Your task to perform on an android device: turn on showing notifications on the lock screen Image 0: 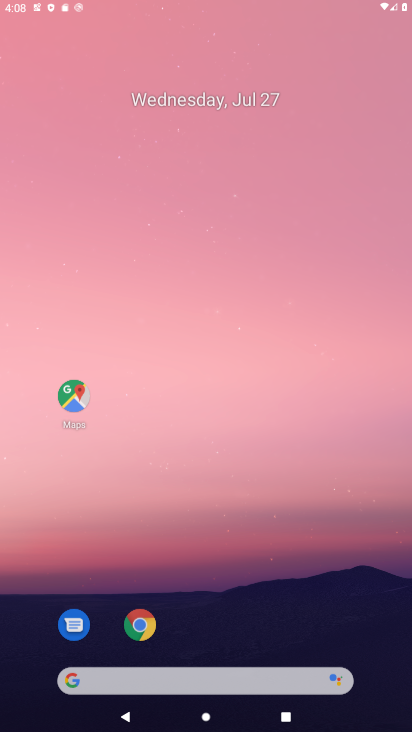
Step 0: press home button
Your task to perform on an android device: turn on showing notifications on the lock screen Image 1: 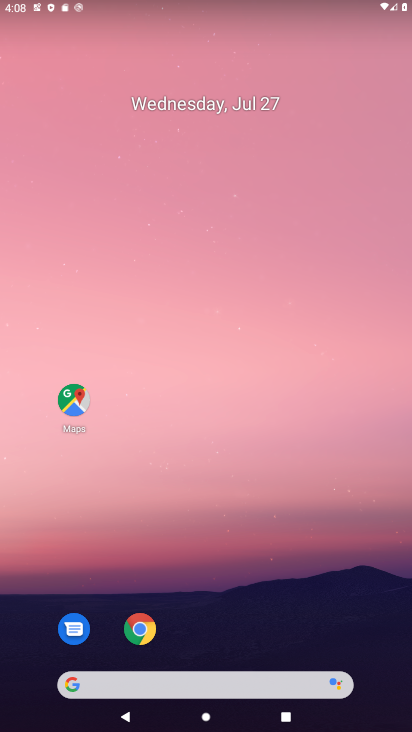
Step 1: drag from (201, 635) to (295, 10)
Your task to perform on an android device: turn on showing notifications on the lock screen Image 2: 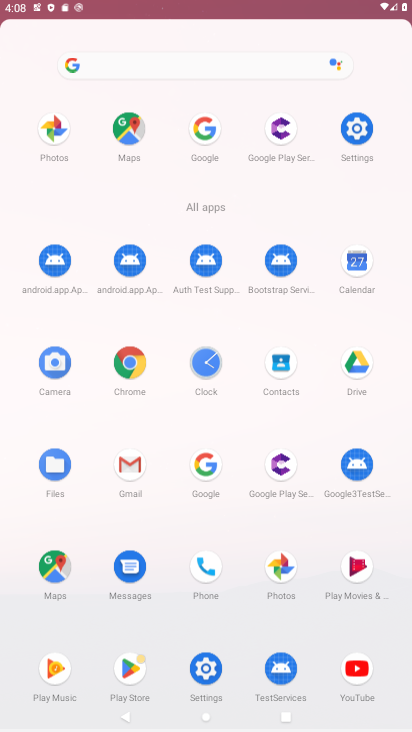
Step 2: click (360, 164)
Your task to perform on an android device: turn on showing notifications on the lock screen Image 3: 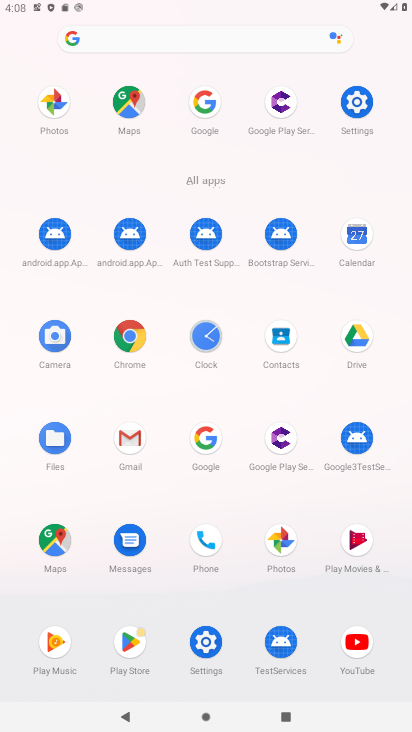
Step 3: click (354, 100)
Your task to perform on an android device: turn on showing notifications on the lock screen Image 4: 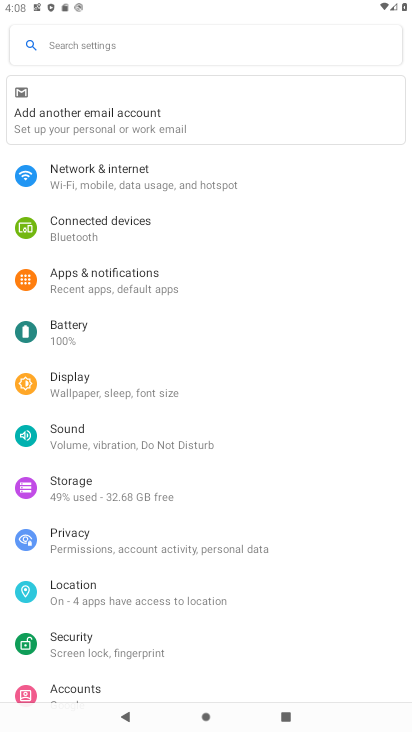
Step 4: click (93, 269)
Your task to perform on an android device: turn on showing notifications on the lock screen Image 5: 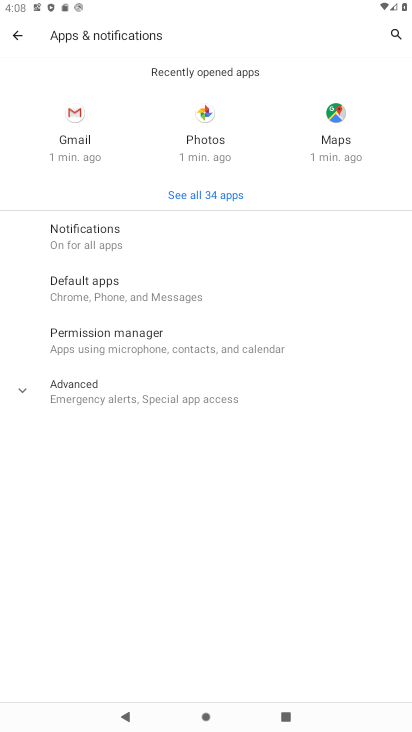
Step 5: click (108, 226)
Your task to perform on an android device: turn on showing notifications on the lock screen Image 6: 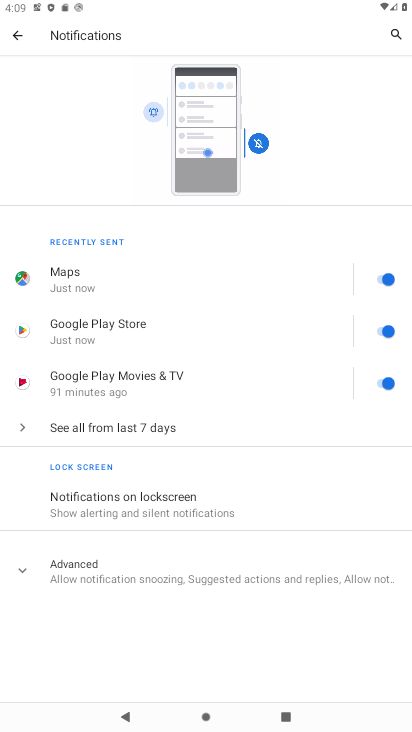
Step 6: click (69, 490)
Your task to perform on an android device: turn on showing notifications on the lock screen Image 7: 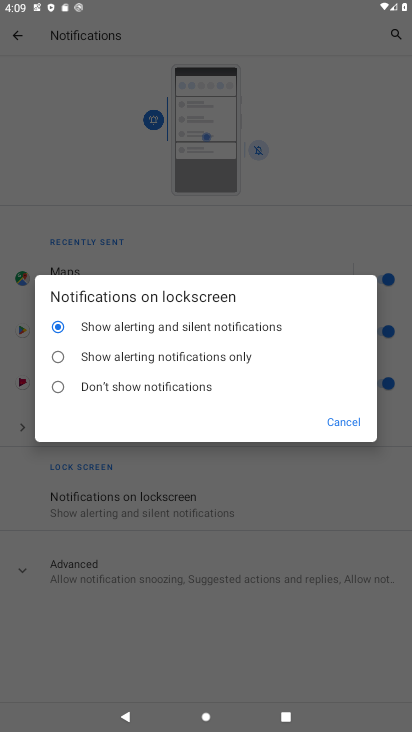
Step 7: task complete